Your task to perform on an android device: Open Google Chrome Image 0: 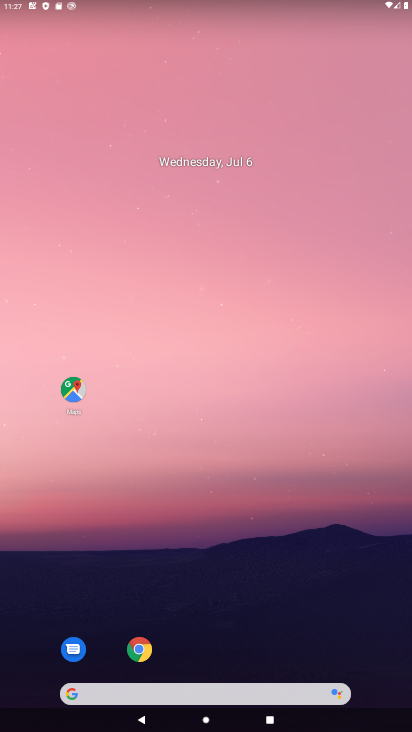
Step 0: drag from (385, 668) to (218, 62)
Your task to perform on an android device: Open Google Chrome Image 1: 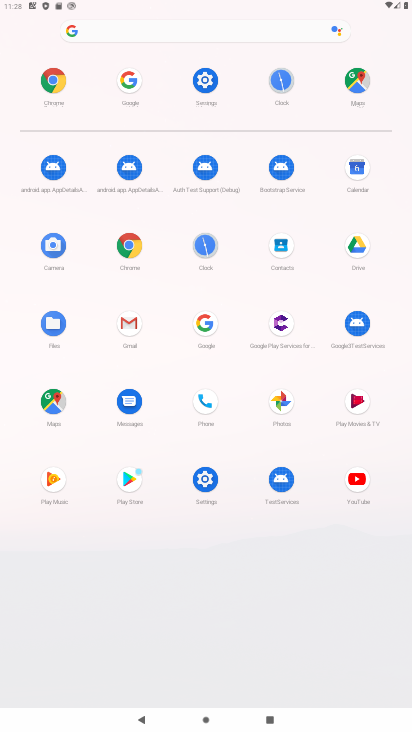
Step 1: click (52, 75)
Your task to perform on an android device: Open Google Chrome Image 2: 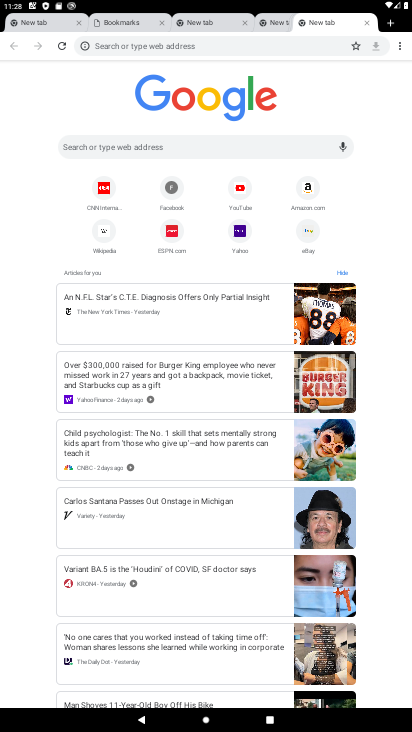
Step 2: task complete